Your task to perform on an android device: toggle pop-ups in chrome Image 0: 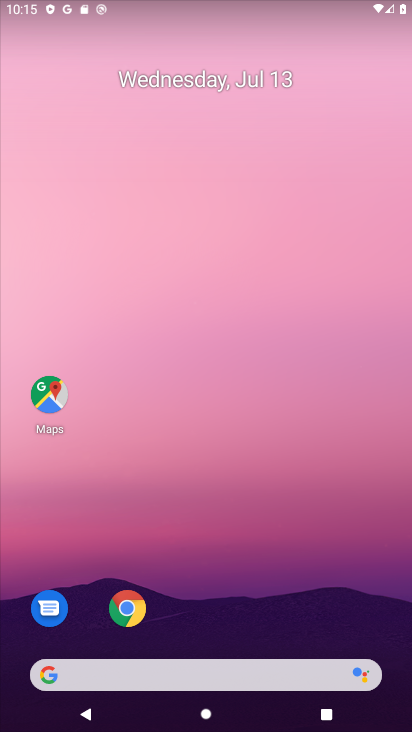
Step 0: click (135, 622)
Your task to perform on an android device: toggle pop-ups in chrome Image 1: 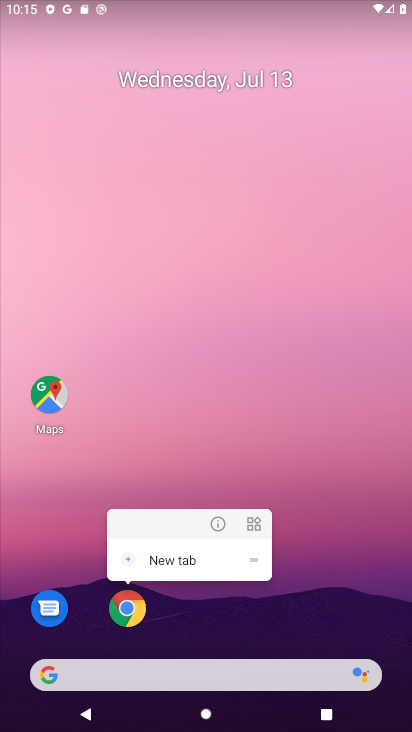
Step 1: click (134, 614)
Your task to perform on an android device: toggle pop-ups in chrome Image 2: 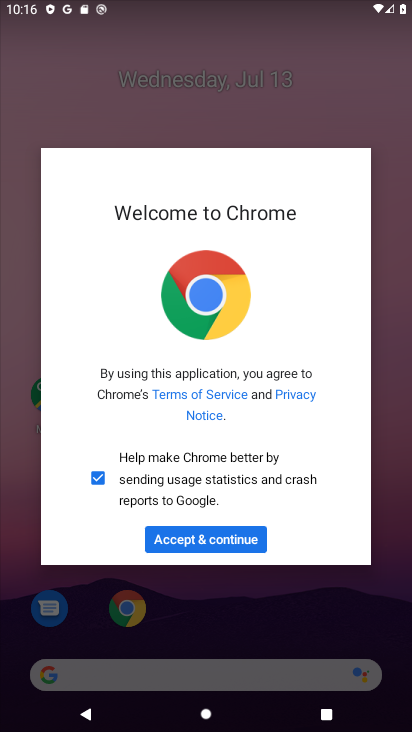
Step 2: click (203, 536)
Your task to perform on an android device: toggle pop-ups in chrome Image 3: 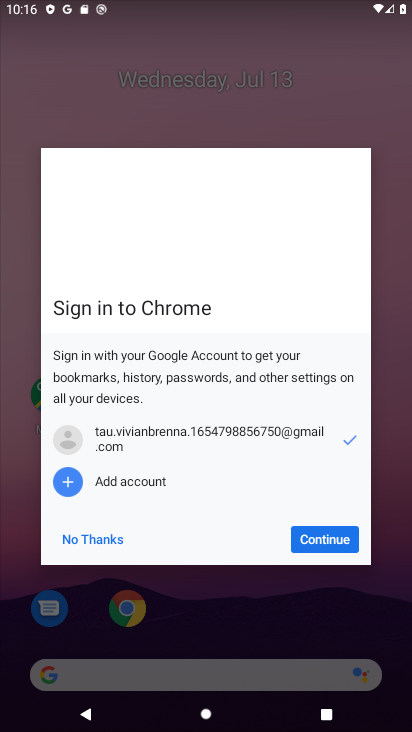
Step 3: click (336, 539)
Your task to perform on an android device: toggle pop-ups in chrome Image 4: 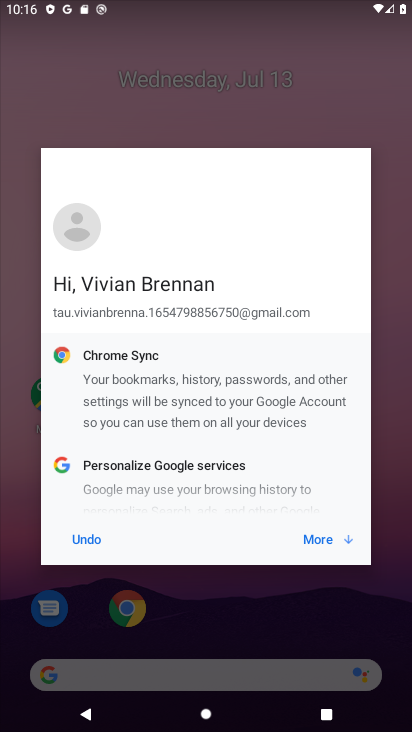
Step 4: click (339, 539)
Your task to perform on an android device: toggle pop-ups in chrome Image 5: 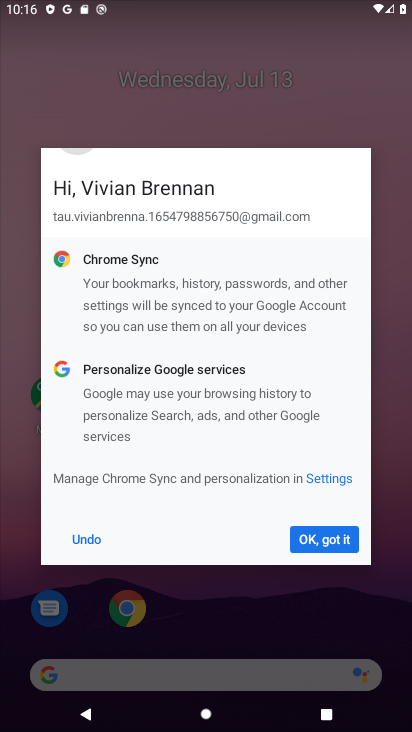
Step 5: click (339, 539)
Your task to perform on an android device: toggle pop-ups in chrome Image 6: 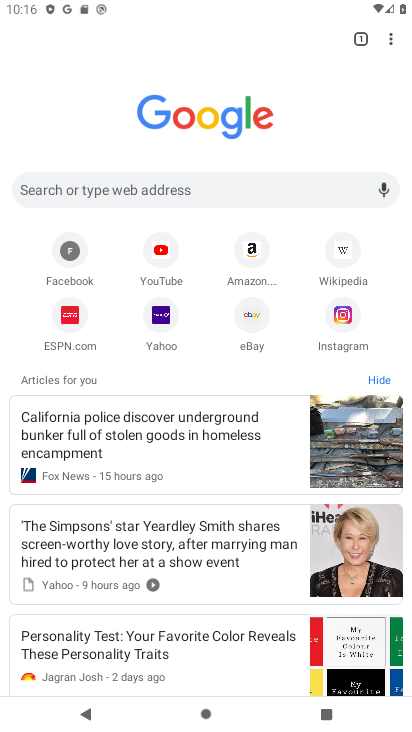
Step 6: click (391, 38)
Your task to perform on an android device: toggle pop-ups in chrome Image 7: 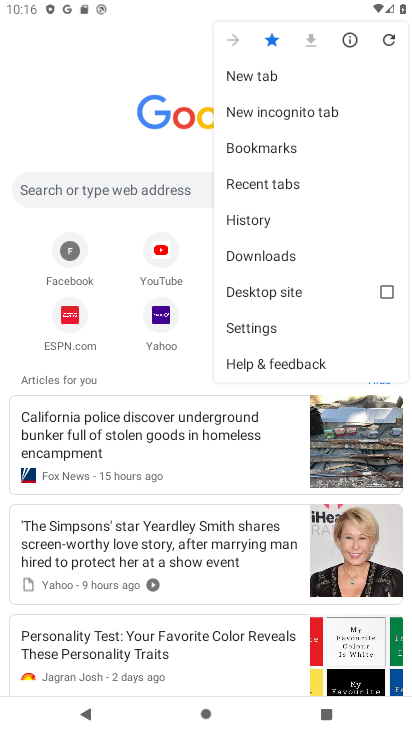
Step 7: click (275, 328)
Your task to perform on an android device: toggle pop-ups in chrome Image 8: 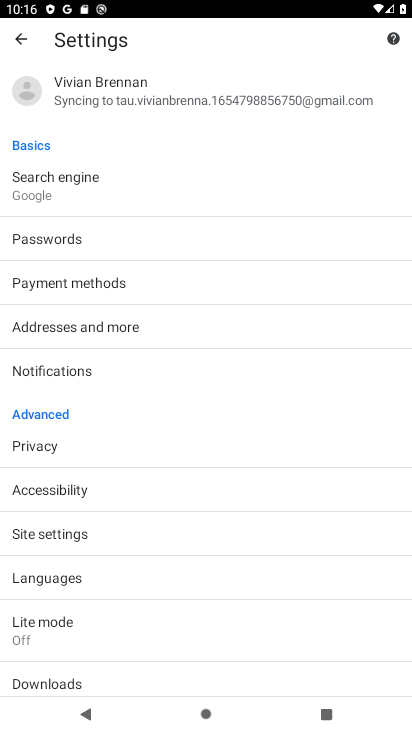
Step 8: click (66, 525)
Your task to perform on an android device: toggle pop-ups in chrome Image 9: 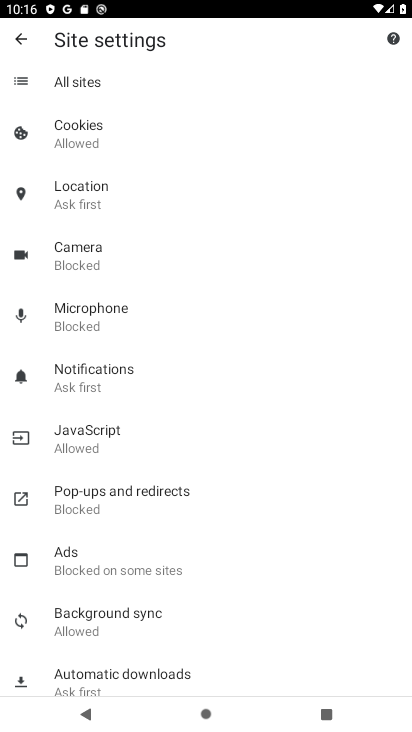
Step 9: click (151, 500)
Your task to perform on an android device: toggle pop-ups in chrome Image 10: 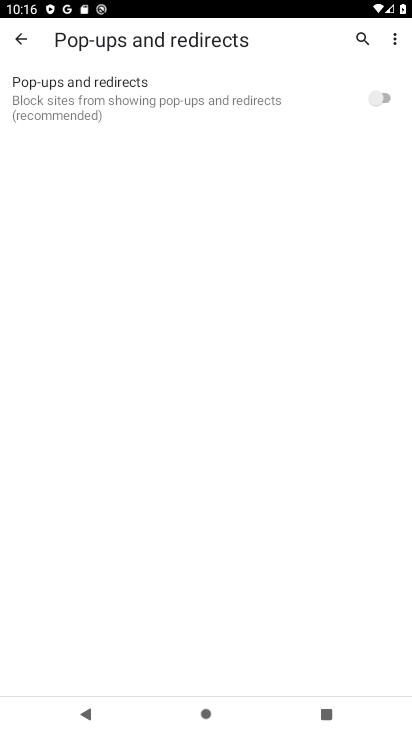
Step 10: click (376, 107)
Your task to perform on an android device: toggle pop-ups in chrome Image 11: 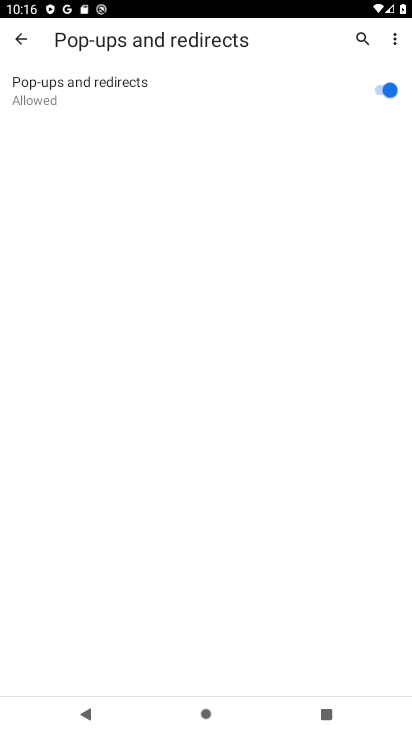
Step 11: task complete